Your task to perform on an android device: add a contact in the contacts app Image 0: 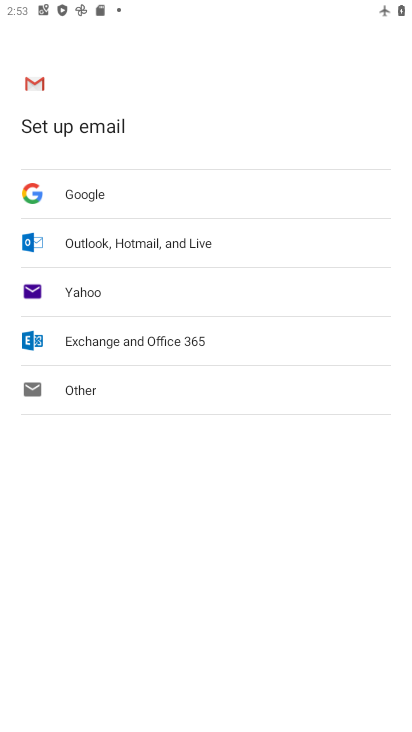
Step 0: press home button
Your task to perform on an android device: add a contact in the contacts app Image 1: 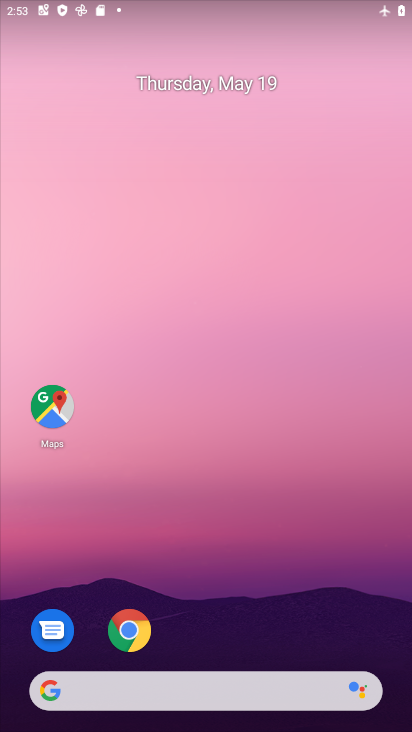
Step 1: drag from (383, 634) to (319, 25)
Your task to perform on an android device: add a contact in the contacts app Image 2: 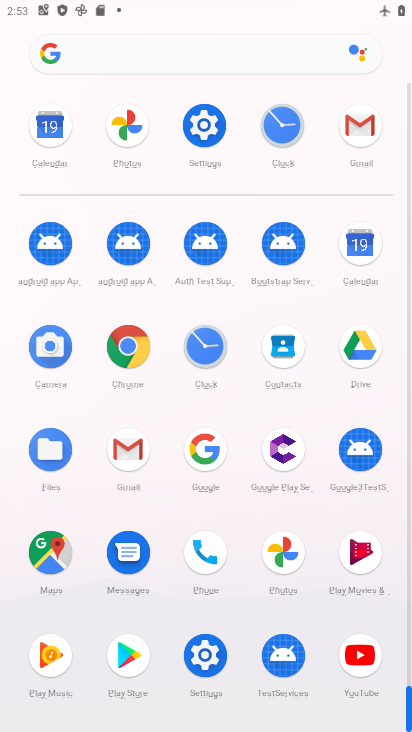
Step 2: click (281, 345)
Your task to perform on an android device: add a contact in the contacts app Image 3: 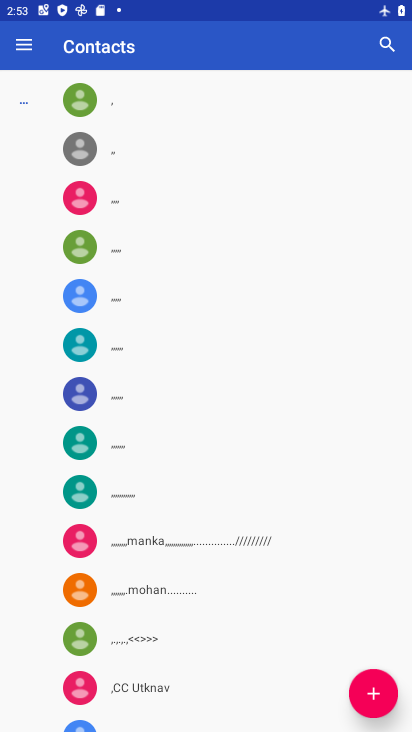
Step 3: click (372, 694)
Your task to perform on an android device: add a contact in the contacts app Image 4: 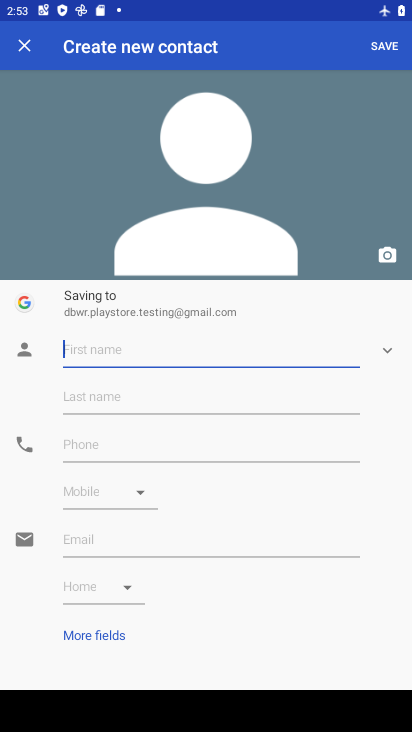
Step 4: type "fattopdgkdlt"
Your task to perform on an android device: add a contact in the contacts app Image 5: 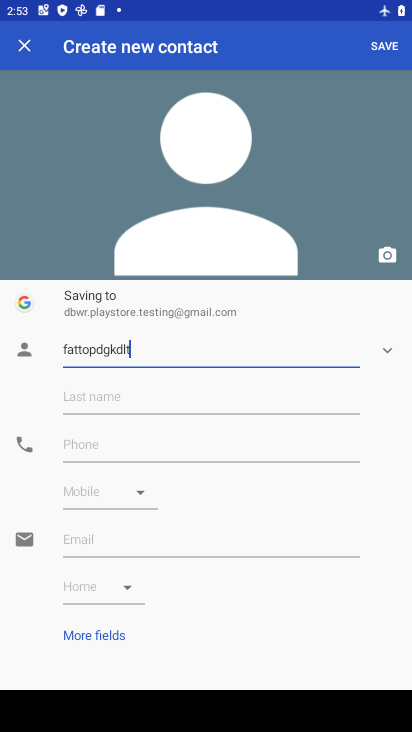
Step 5: click (89, 446)
Your task to perform on an android device: add a contact in the contacts app Image 6: 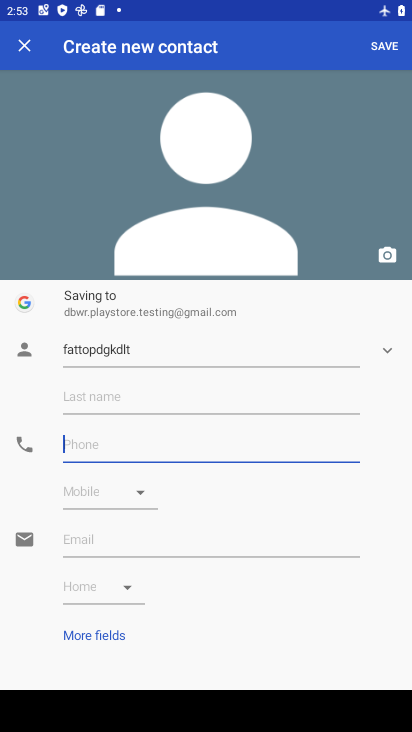
Step 6: type "0981455670"
Your task to perform on an android device: add a contact in the contacts app Image 7: 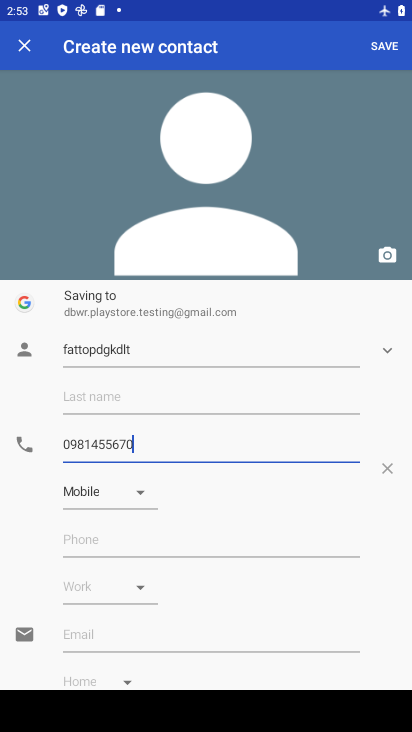
Step 7: click (145, 490)
Your task to perform on an android device: add a contact in the contacts app Image 8: 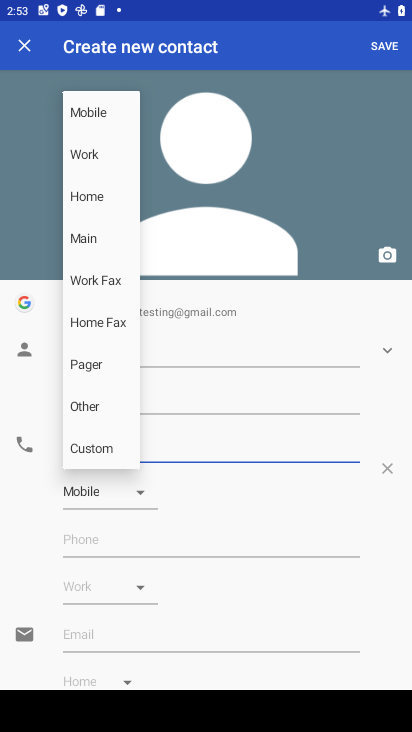
Step 8: click (80, 194)
Your task to perform on an android device: add a contact in the contacts app Image 9: 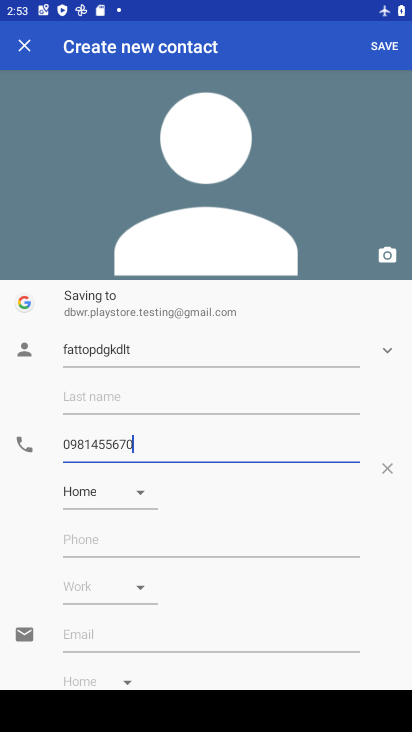
Step 9: click (381, 44)
Your task to perform on an android device: add a contact in the contacts app Image 10: 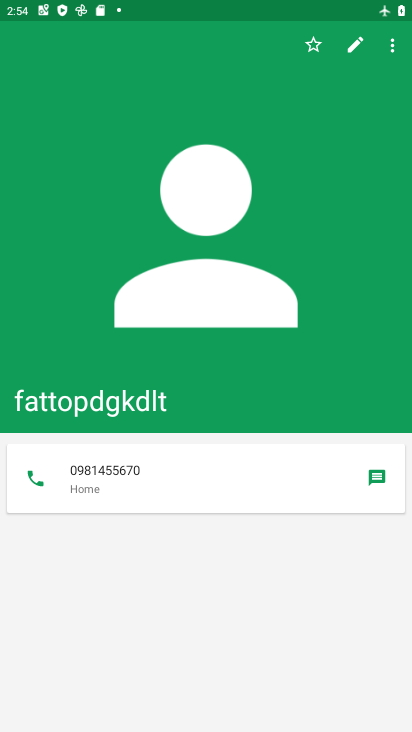
Step 10: task complete